Your task to perform on an android device: add a contact Image 0: 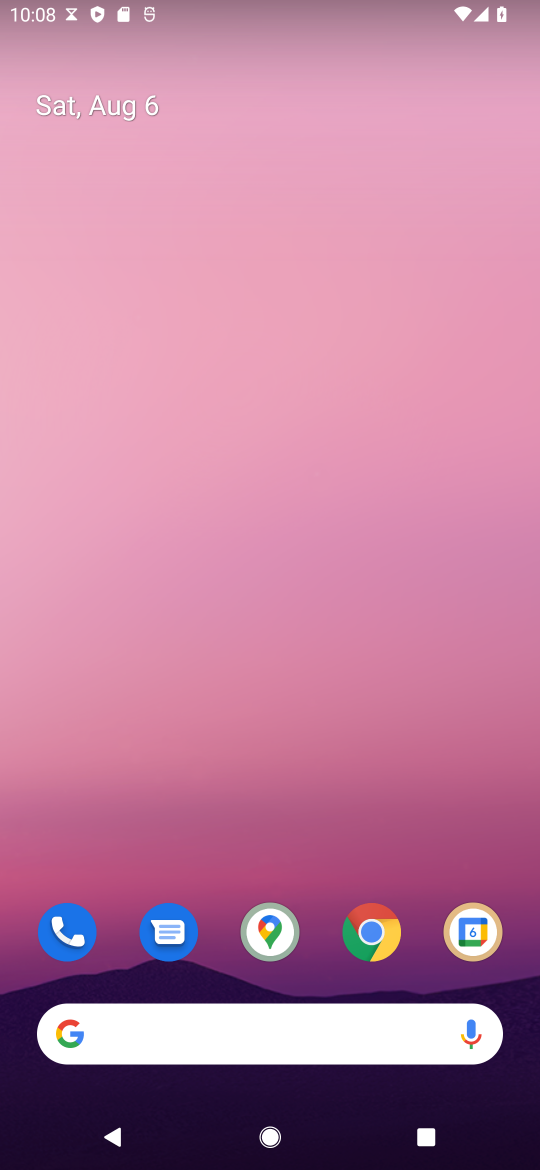
Step 0: drag from (256, 1015) to (269, 450)
Your task to perform on an android device: add a contact Image 1: 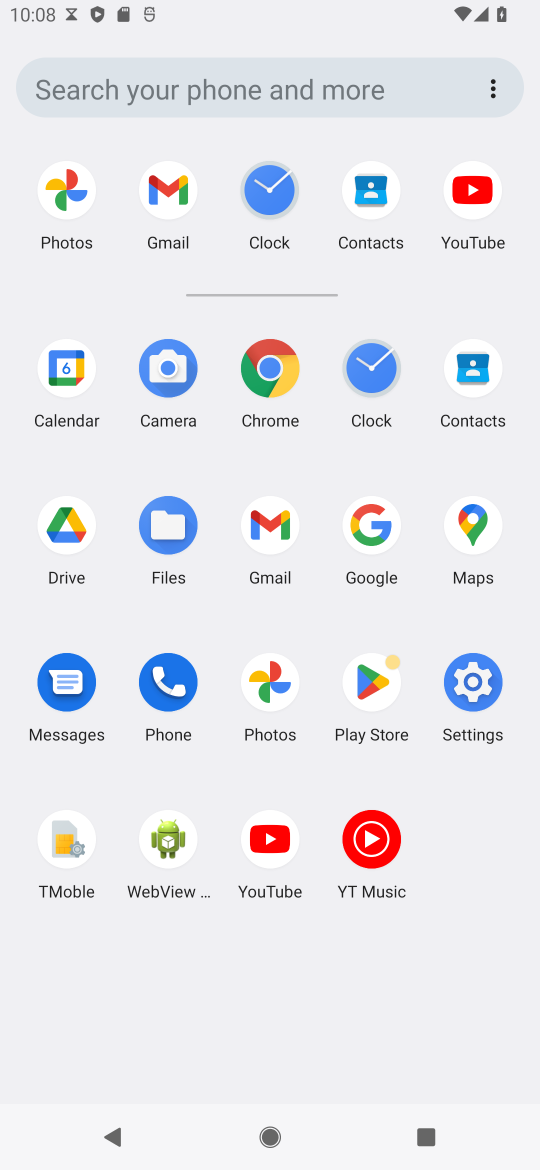
Step 1: click (473, 367)
Your task to perform on an android device: add a contact Image 2: 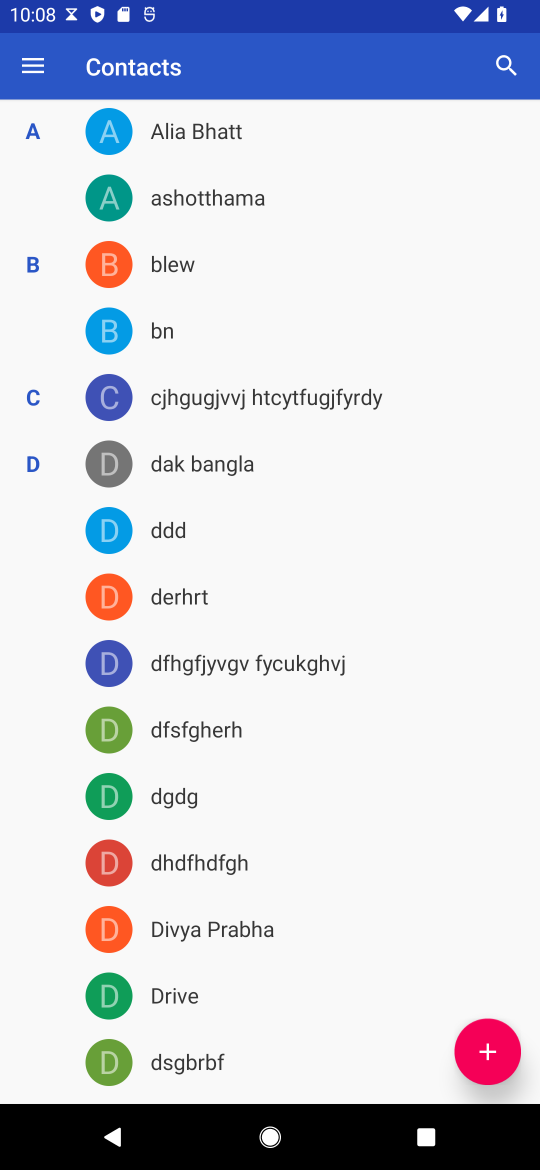
Step 2: click (486, 1047)
Your task to perform on an android device: add a contact Image 3: 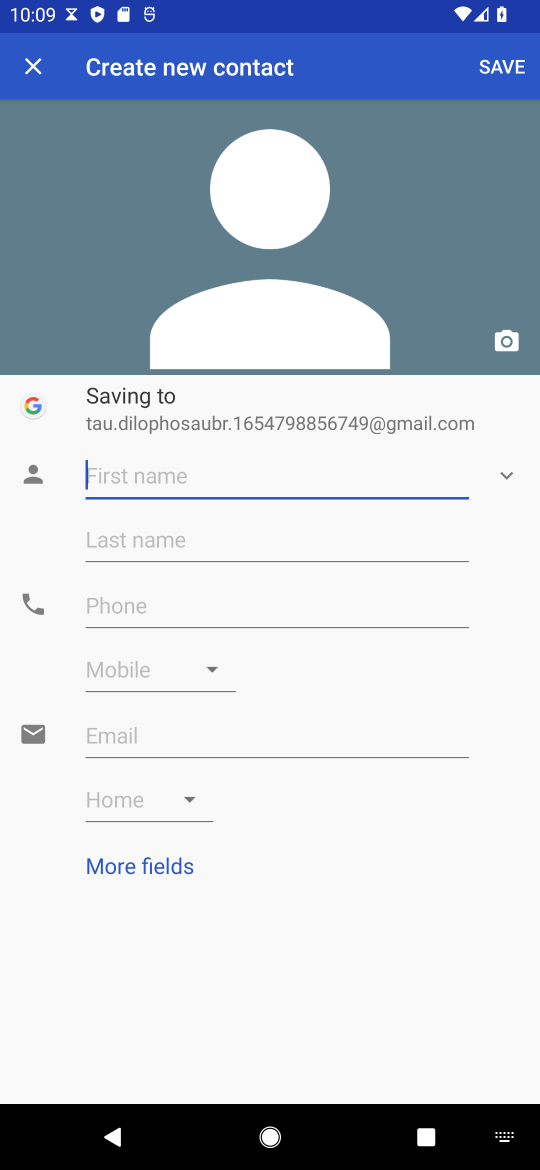
Step 3: type "Apnaab"
Your task to perform on an android device: add a contact Image 4: 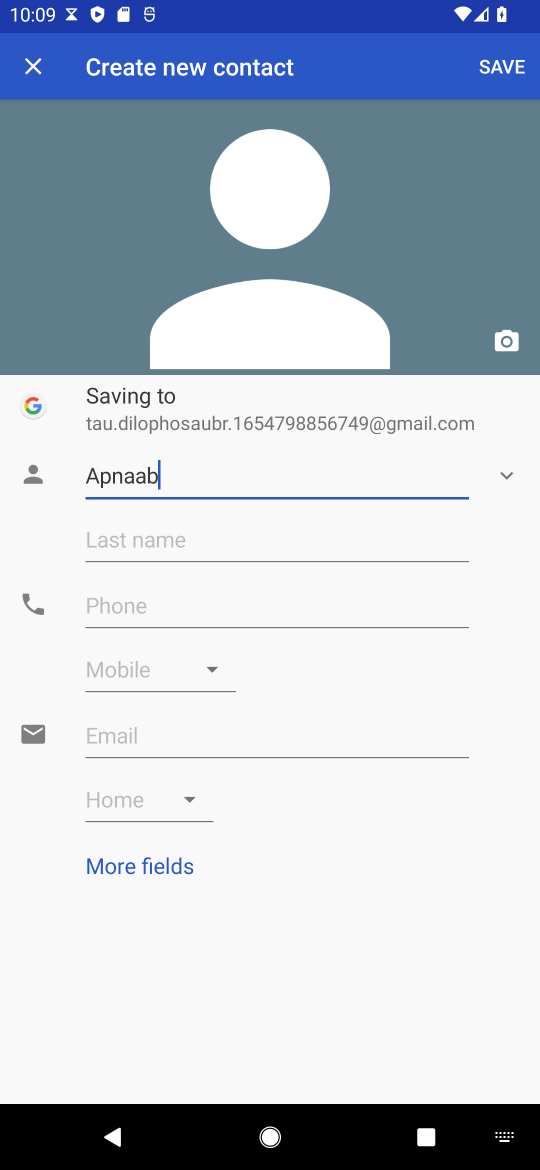
Step 4: click (353, 550)
Your task to perform on an android device: add a contact Image 5: 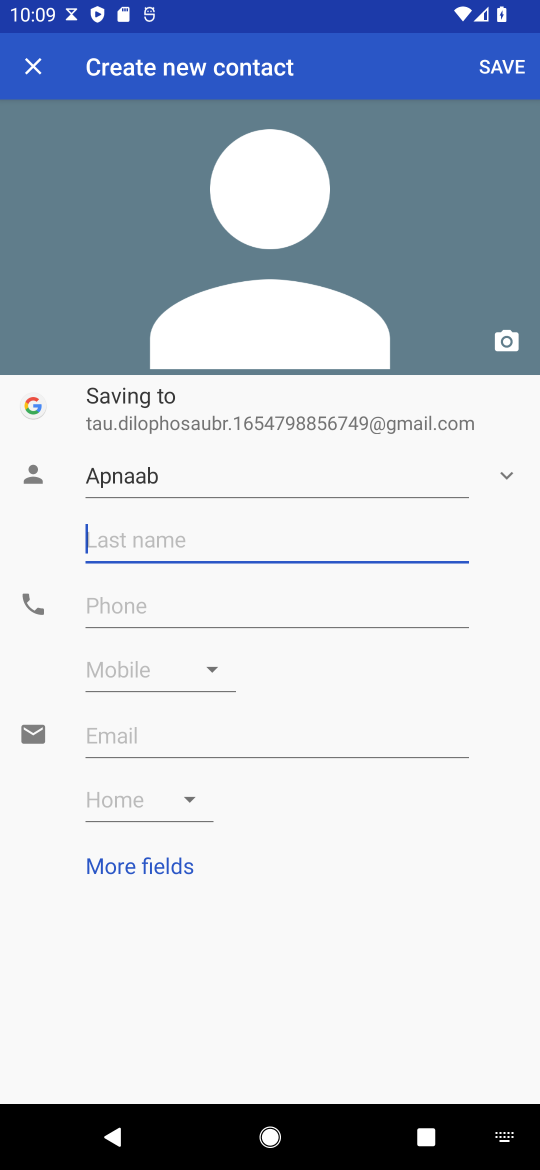
Step 5: type "tabnab"
Your task to perform on an android device: add a contact Image 6: 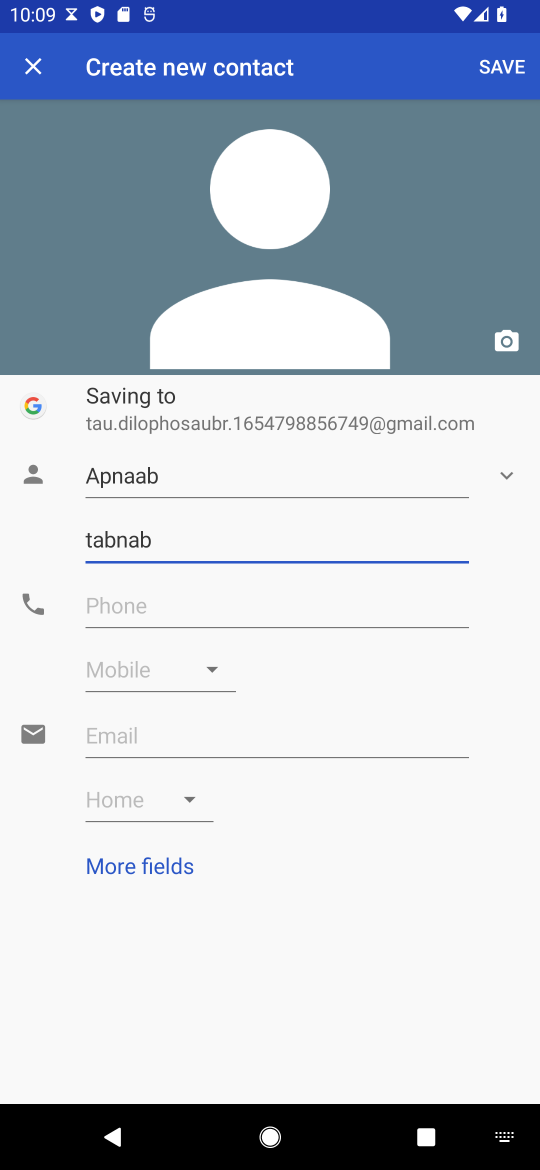
Step 6: click (310, 612)
Your task to perform on an android device: add a contact Image 7: 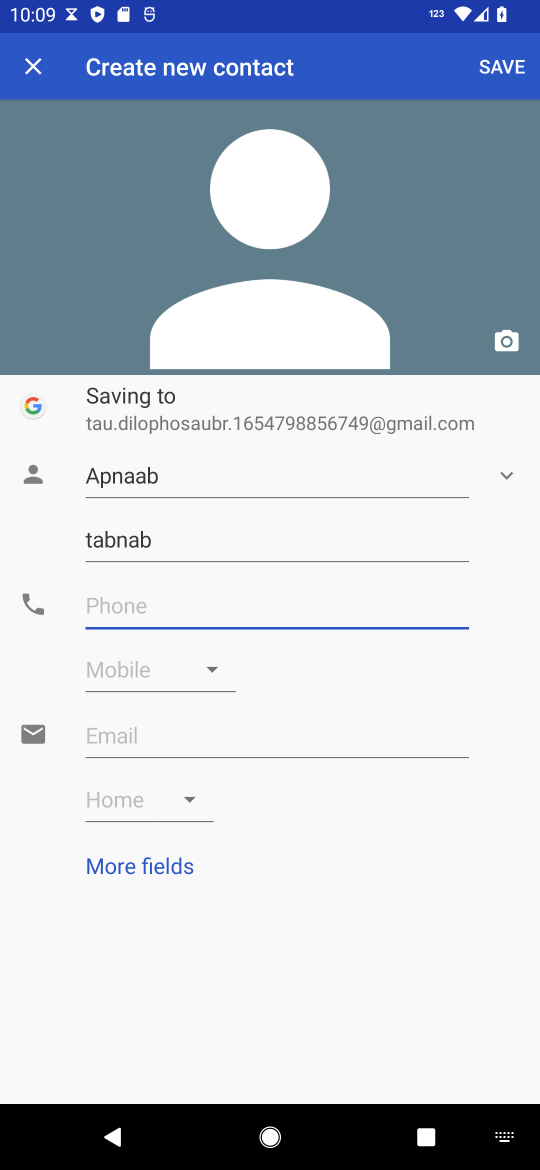
Step 7: type "0998877665544"
Your task to perform on an android device: add a contact Image 8: 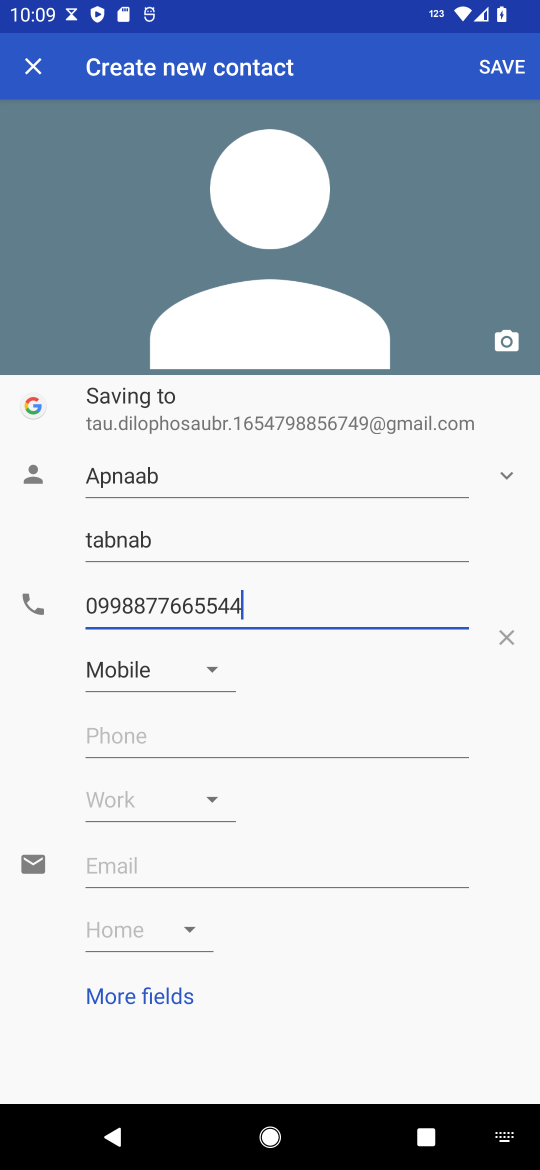
Step 8: click (488, 83)
Your task to perform on an android device: add a contact Image 9: 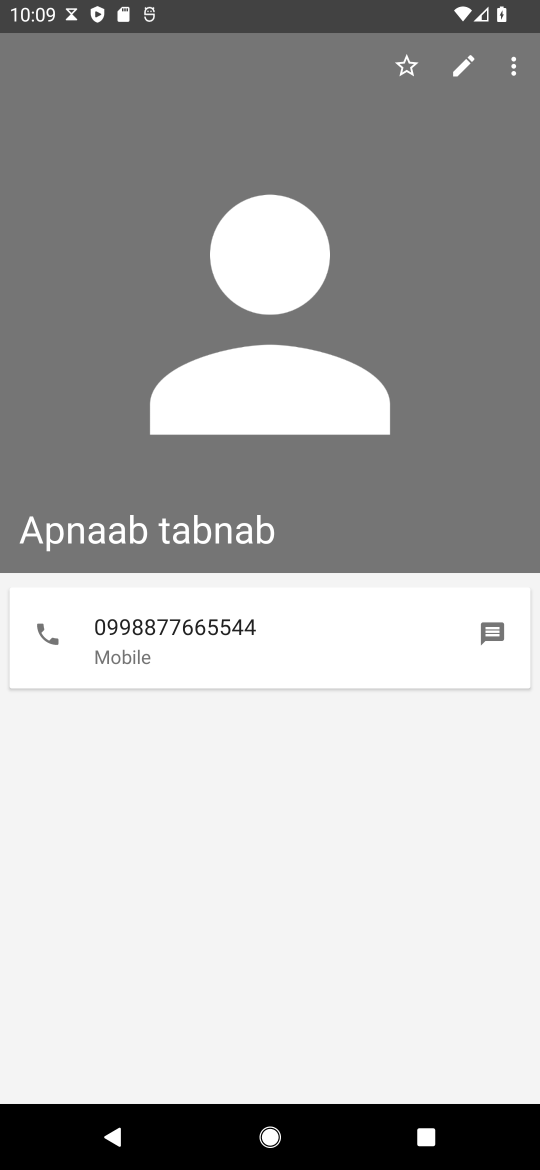
Step 9: task complete